Your task to perform on an android device: check storage Image 0: 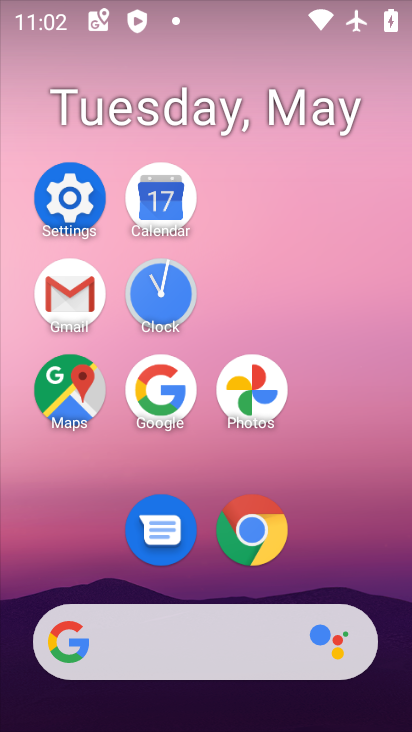
Step 0: click (87, 196)
Your task to perform on an android device: check storage Image 1: 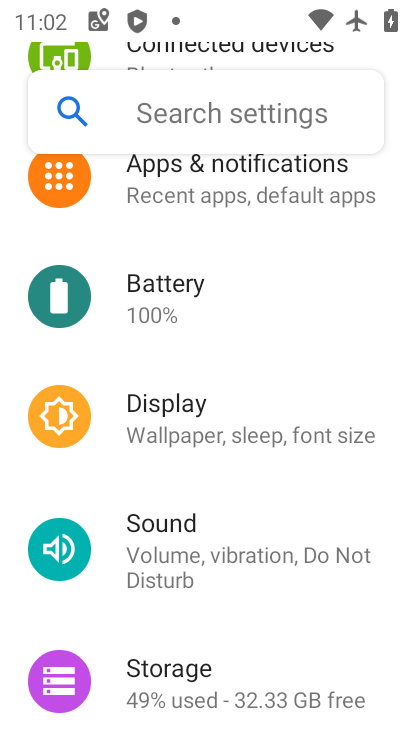
Step 1: click (268, 670)
Your task to perform on an android device: check storage Image 2: 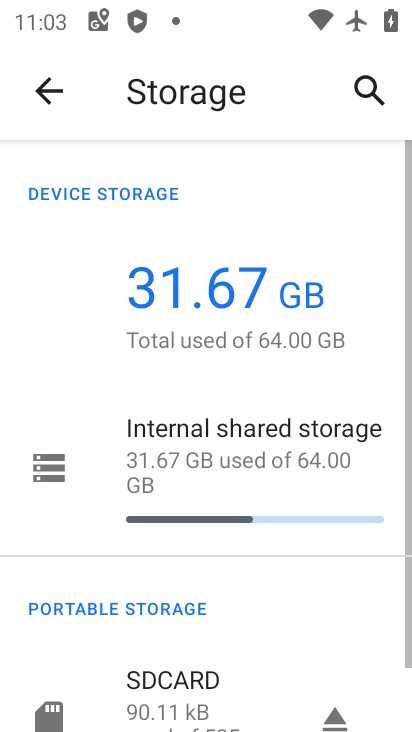
Step 2: task complete